Your task to perform on an android device: Go to battery settings Image 0: 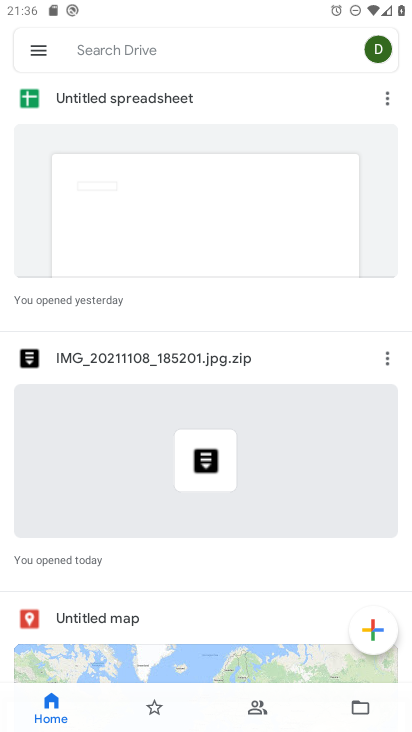
Step 0: press home button
Your task to perform on an android device: Go to battery settings Image 1: 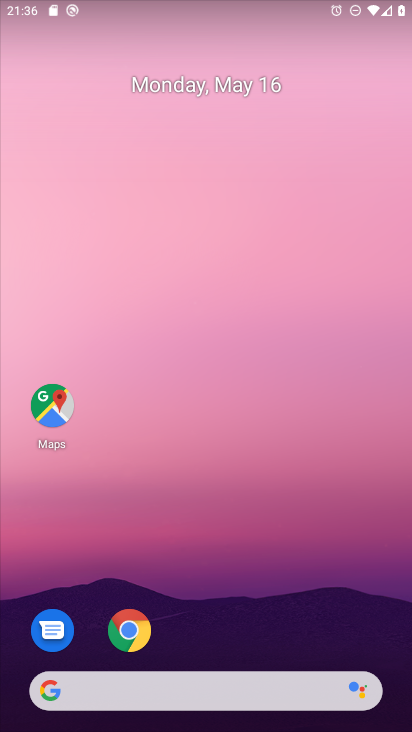
Step 1: drag from (277, 535) to (164, 6)
Your task to perform on an android device: Go to battery settings Image 2: 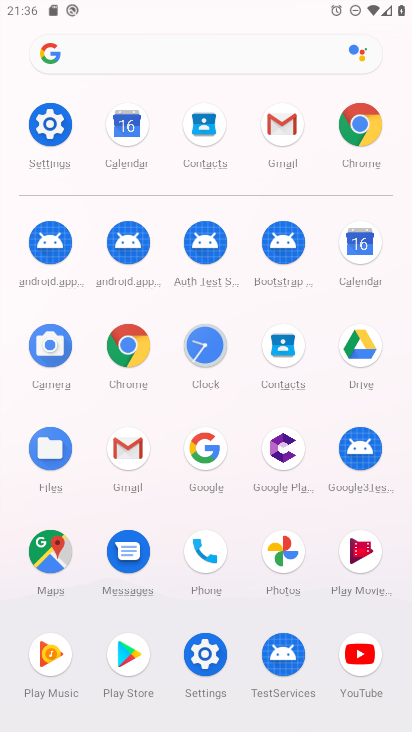
Step 2: click (51, 137)
Your task to perform on an android device: Go to battery settings Image 3: 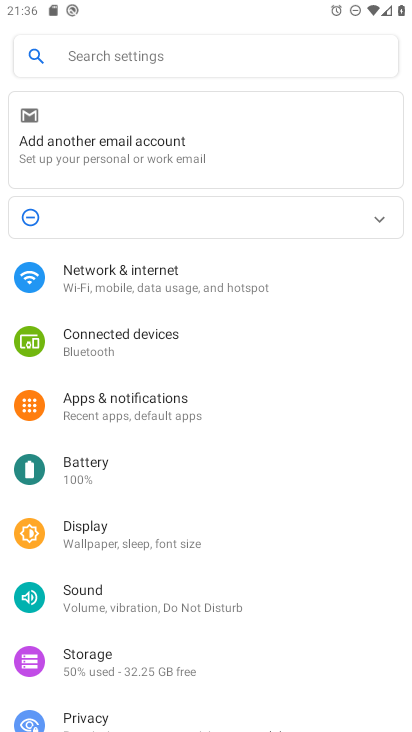
Step 3: click (34, 477)
Your task to perform on an android device: Go to battery settings Image 4: 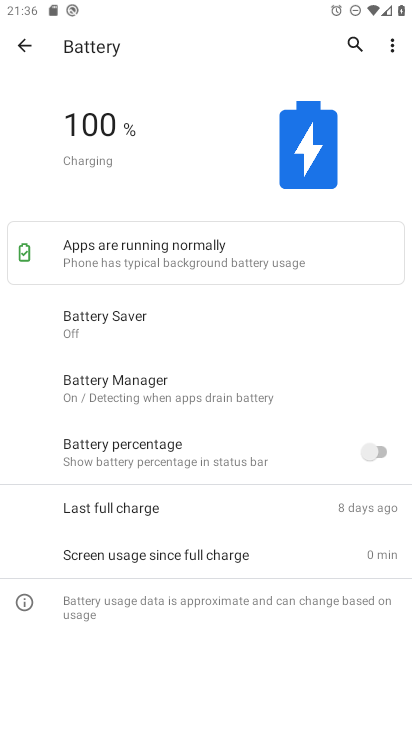
Step 4: task complete